Your task to perform on an android device: delete location history Image 0: 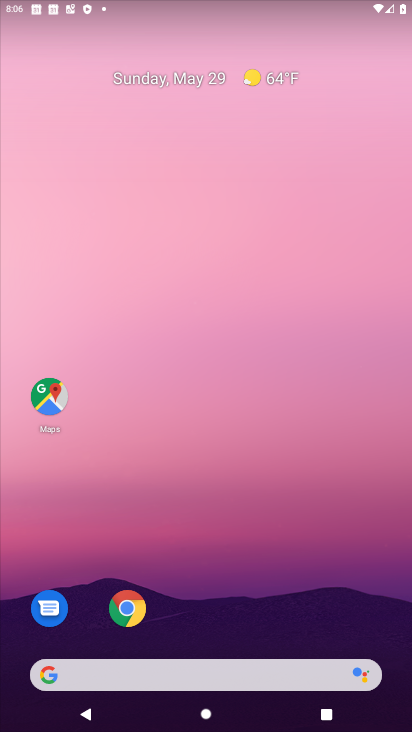
Step 0: click (43, 403)
Your task to perform on an android device: delete location history Image 1: 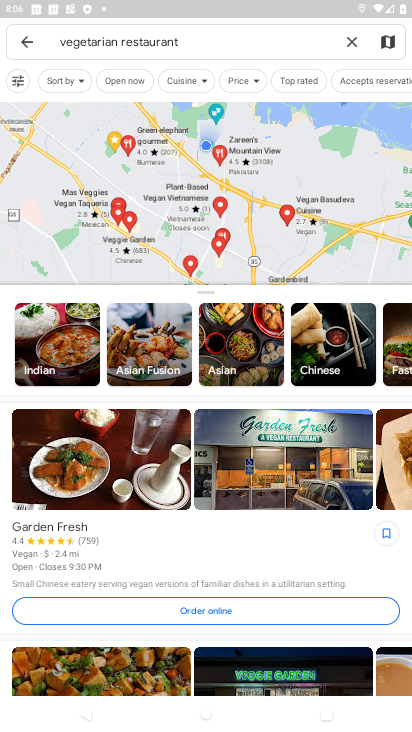
Step 1: click (22, 39)
Your task to perform on an android device: delete location history Image 2: 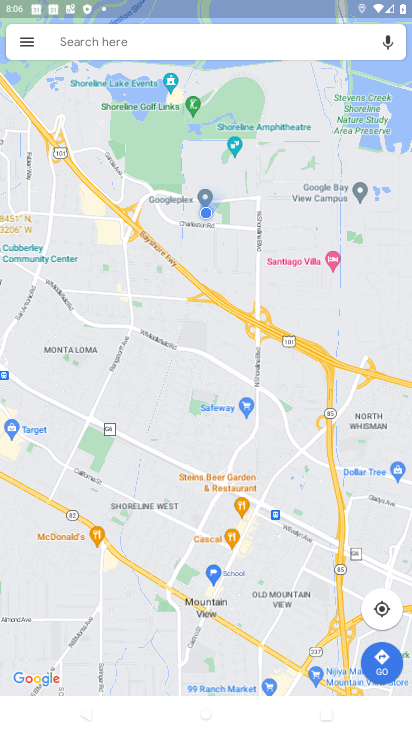
Step 2: click (23, 40)
Your task to perform on an android device: delete location history Image 3: 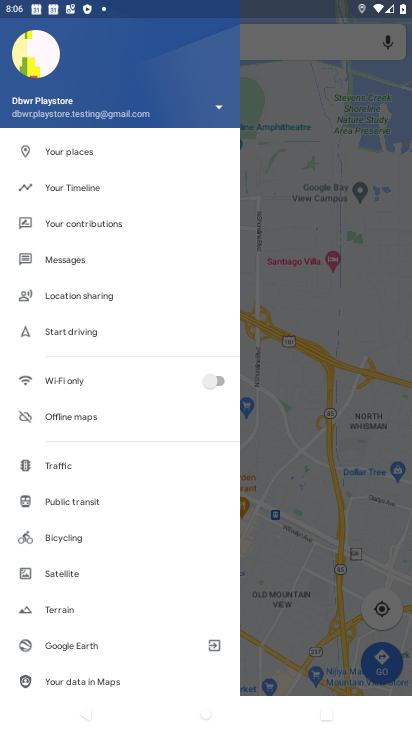
Step 3: click (97, 184)
Your task to perform on an android device: delete location history Image 4: 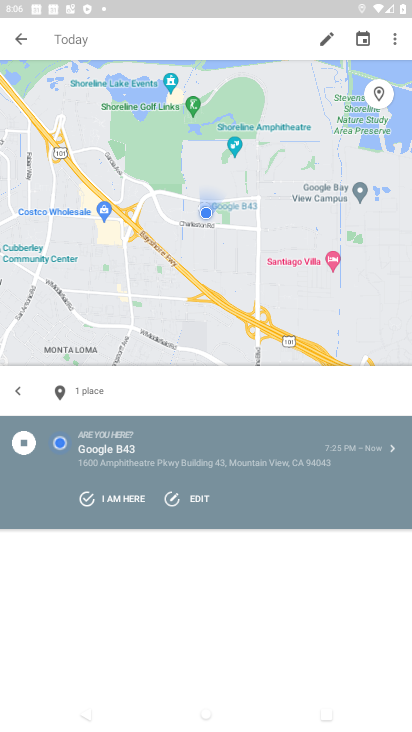
Step 4: click (396, 38)
Your task to perform on an android device: delete location history Image 5: 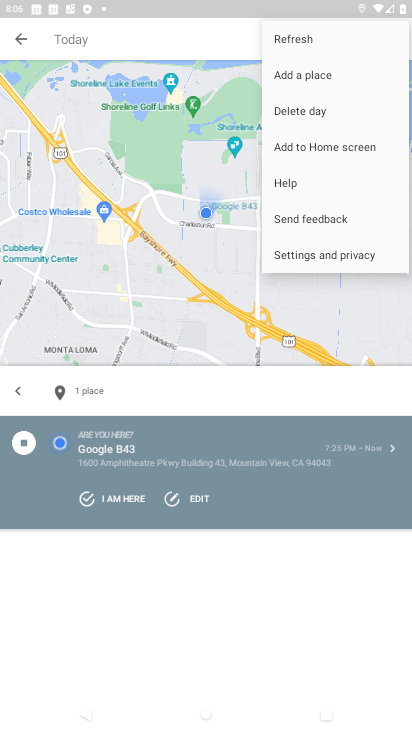
Step 5: click (339, 250)
Your task to perform on an android device: delete location history Image 6: 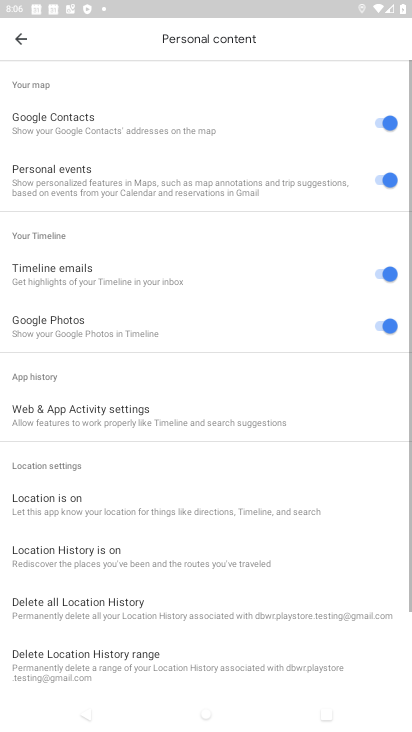
Step 6: drag from (272, 600) to (249, 268)
Your task to perform on an android device: delete location history Image 7: 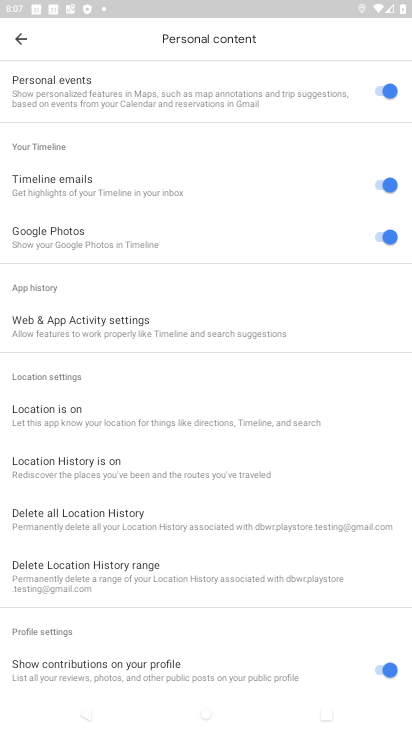
Step 7: click (86, 514)
Your task to perform on an android device: delete location history Image 8: 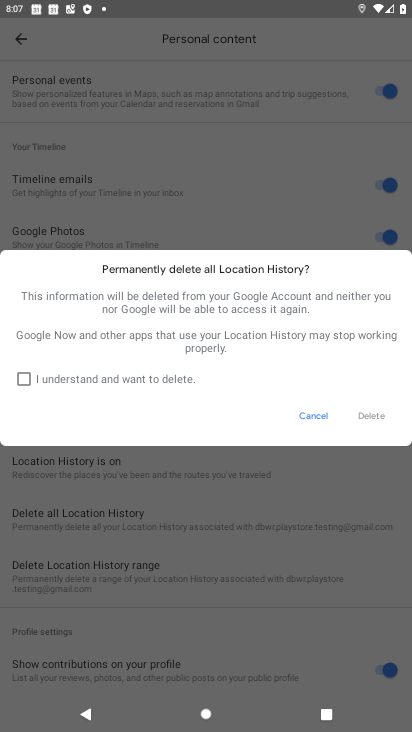
Step 8: click (23, 375)
Your task to perform on an android device: delete location history Image 9: 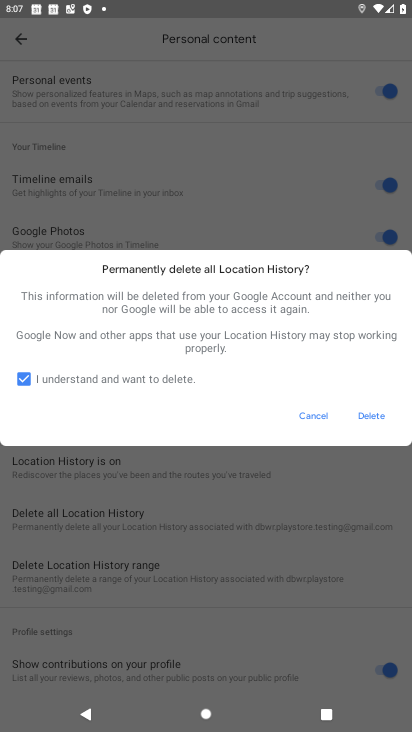
Step 9: click (372, 417)
Your task to perform on an android device: delete location history Image 10: 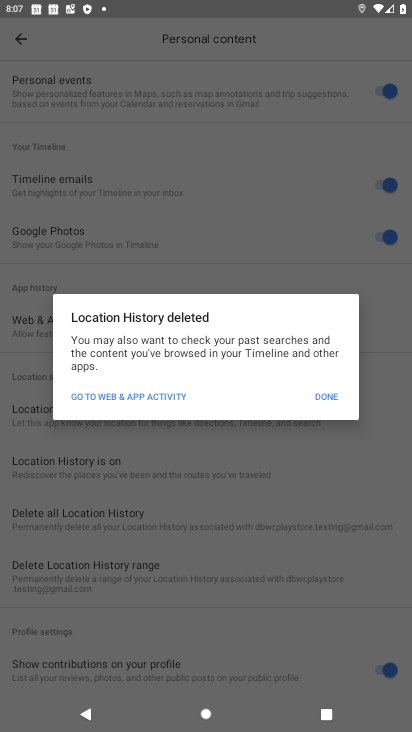
Step 10: click (328, 397)
Your task to perform on an android device: delete location history Image 11: 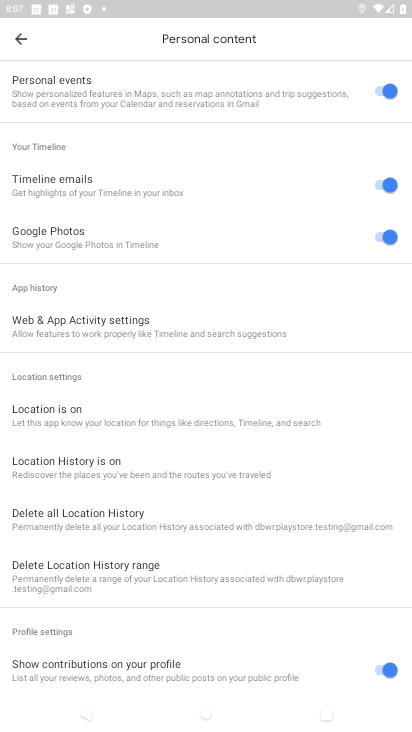
Step 11: task complete